Your task to perform on an android device: Search for pizza restaurants on Maps Image 0: 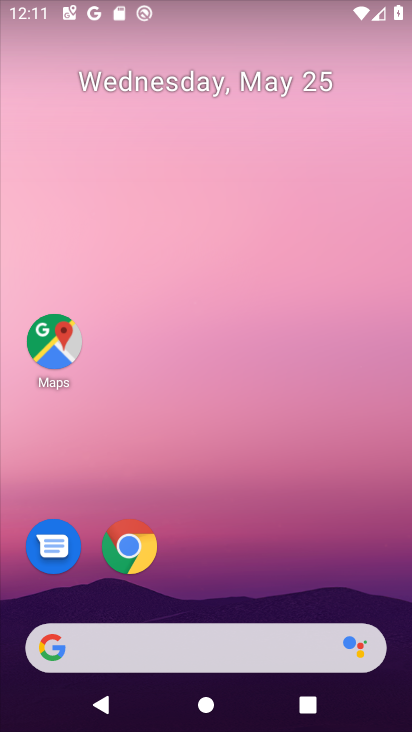
Step 0: drag from (196, 586) to (205, 193)
Your task to perform on an android device: Search for pizza restaurants on Maps Image 1: 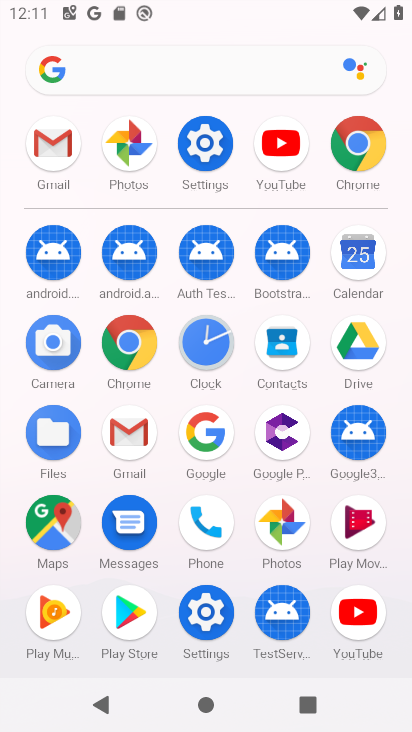
Step 1: click (48, 522)
Your task to perform on an android device: Search for pizza restaurants on Maps Image 2: 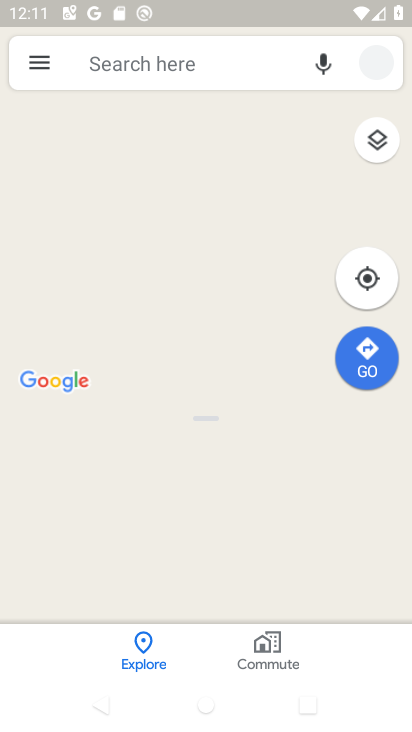
Step 2: click (181, 59)
Your task to perform on an android device: Search for pizza restaurants on Maps Image 3: 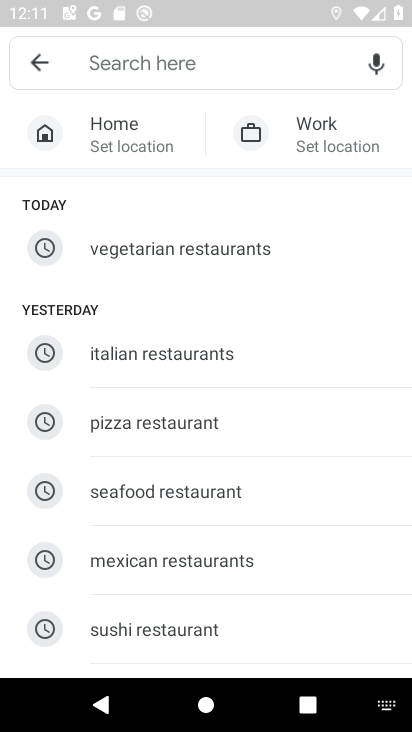
Step 3: type "Pizza restaurants"
Your task to perform on an android device: Search for pizza restaurants on Maps Image 4: 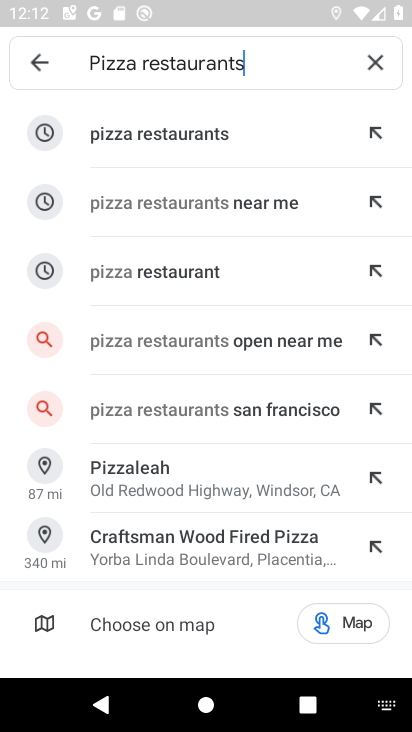
Step 4: click (247, 142)
Your task to perform on an android device: Search for pizza restaurants on Maps Image 5: 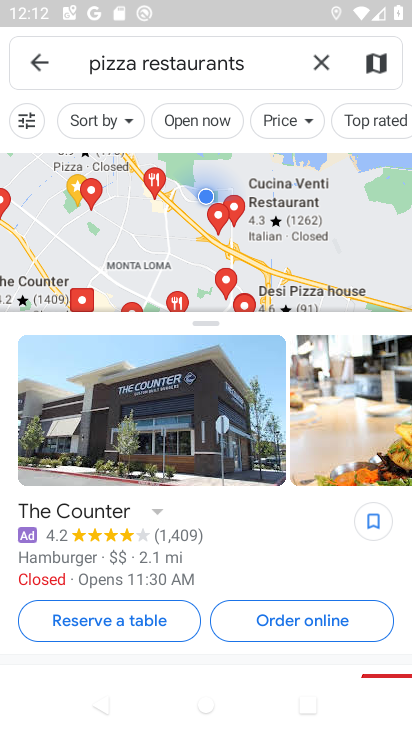
Step 5: task complete